Your task to perform on an android device: turn off improve location accuracy Image 0: 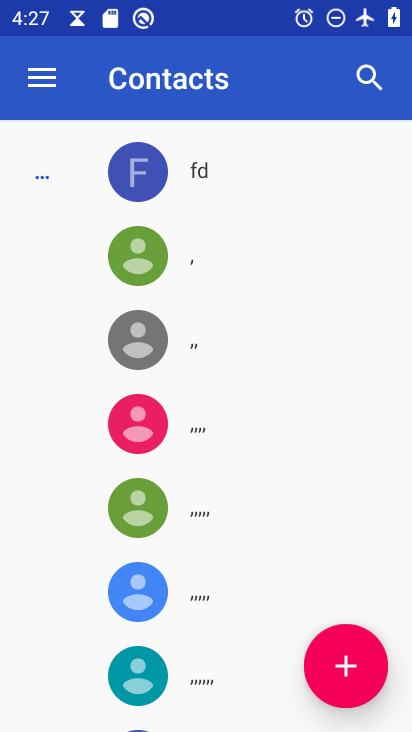
Step 0: press home button
Your task to perform on an android device: turn off improve location accuracy Image 1: 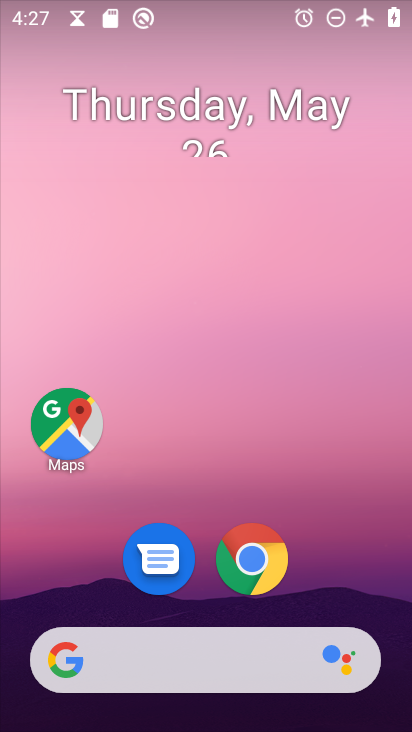
Step 1: drag from (349, 546) to (253, 15)
Your task to perform on an android device: turn off improve location accuracy Image 2: 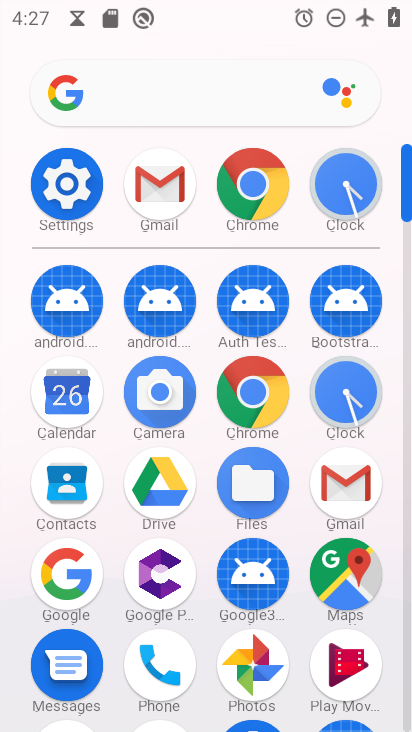
Step 2: click (79, 185)
Your task to perform on an android device: turn off improve location accuracy Image 3: 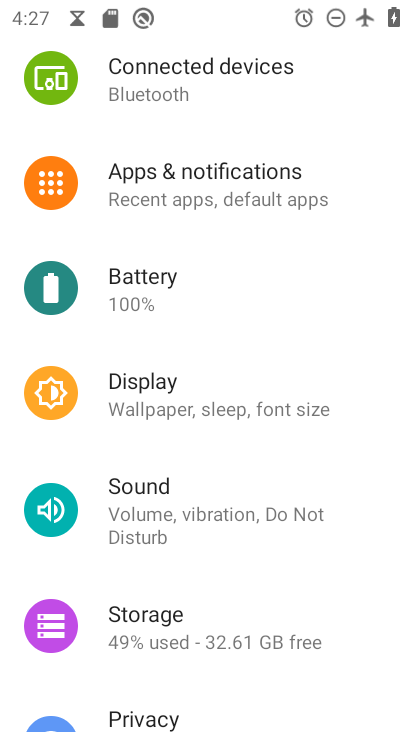
Step 3: drag from (246, 549) to (258, 156)
Your task to perform on an android device: turn off improve location accuracy Image 4: 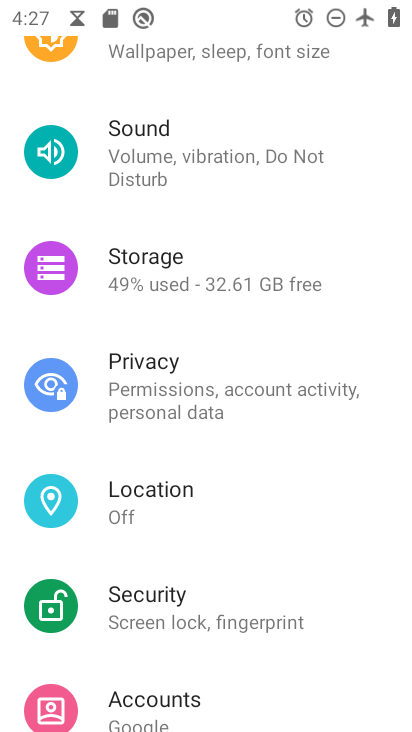
Step 4: click (218, 516)
Your task to perform on an android device: turn off improve location accuracy Image 5: 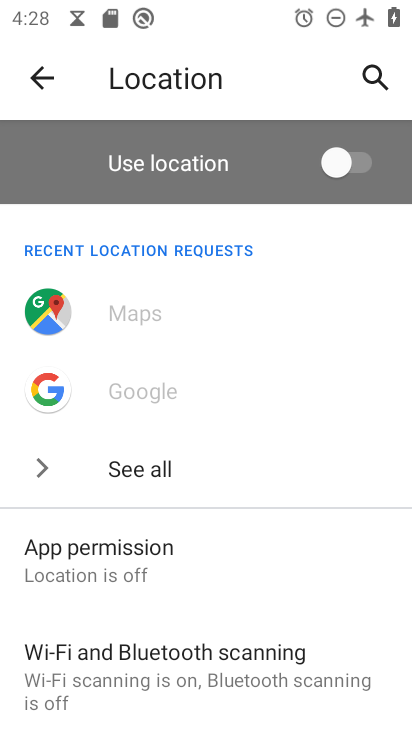
Step 5: drag from (275, 584) to (317, 145)
Your task to perform on an android device: turn off improve location accuracy Image 6: 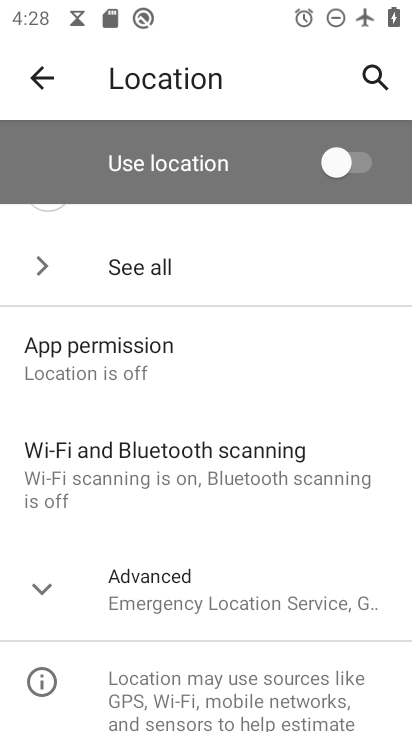
Step 6: click (194, 579)
Your task to perform on an android device: turn off improve location accuracy Image 7: 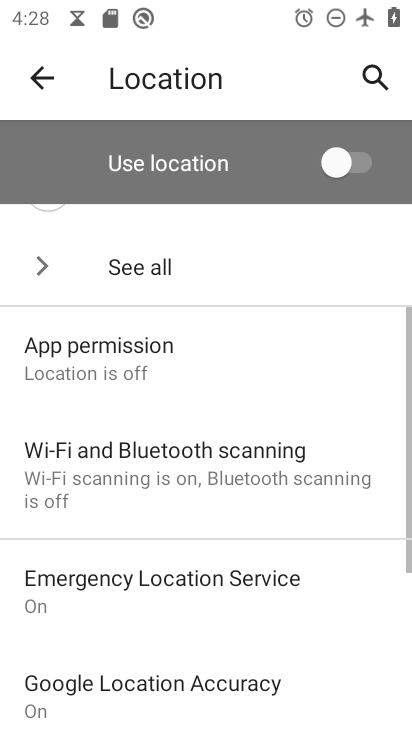
Step 7: drag from (262, 642) to (315, 269)
Your task to perform on an android device: turn off improve location accuracy Image 8: 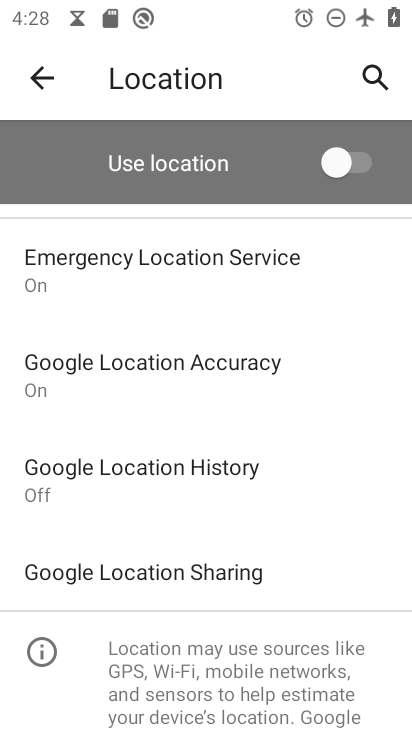
Step 8: click (225, 362)
Your task to perform on an android device: turn off improve location accuracy Image 9: 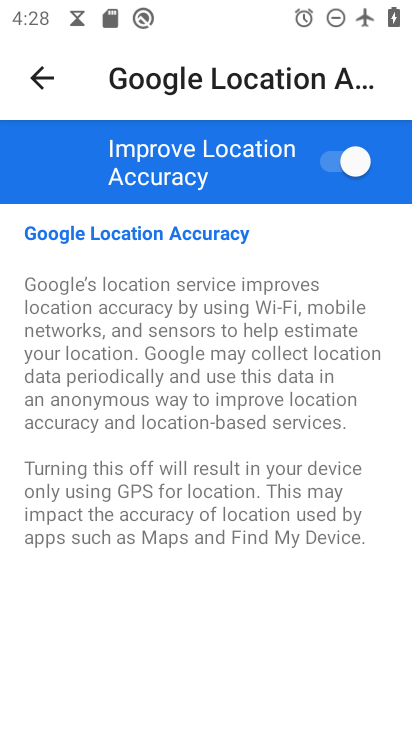
Step 9: click (346, 146)
Your task to perform on an android device: turn off improve location accuracy Image 10: 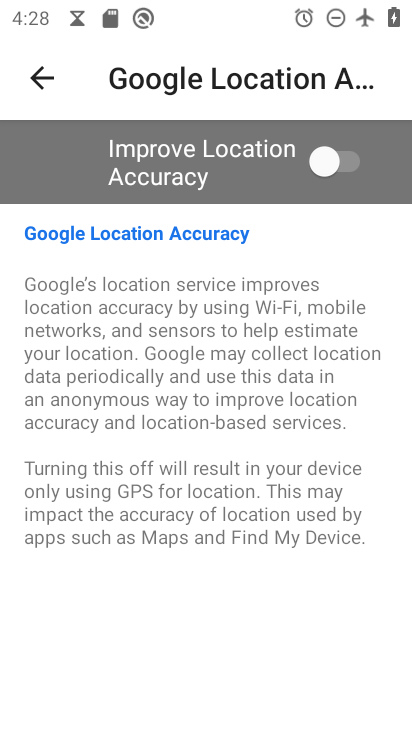
Step 10: task complete